Your task to perform on an android device: turn off translation in the chrome app Image 0: 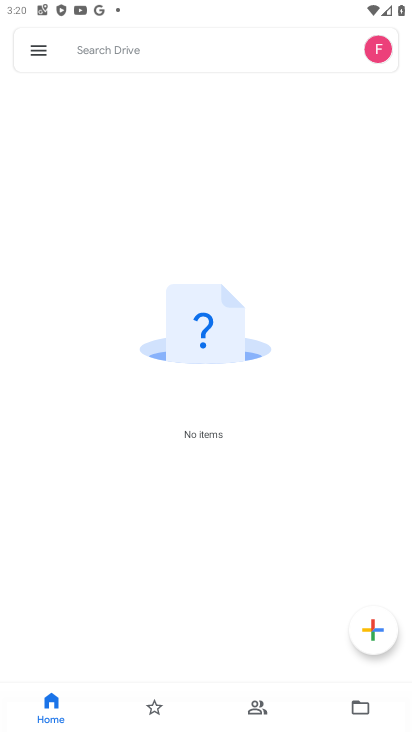
Step 0: press home button
Your task to perform on an android device: turn off translation in the chrome app Image 1: 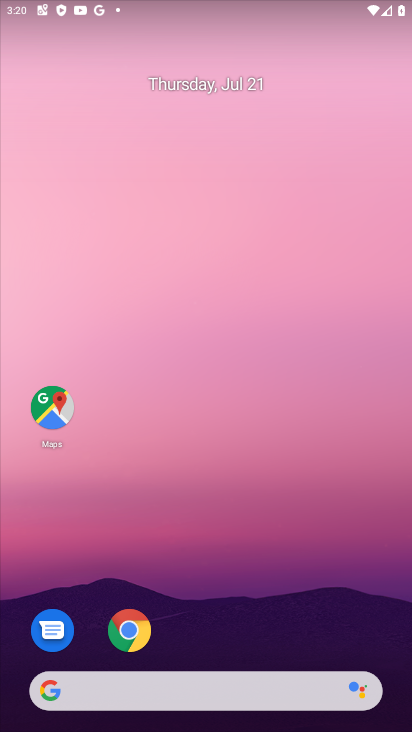
Step 1: drag from (283, 612) to (3, 623)
Your task to perform on an android device: turn off translation in the chrome app Image 2: 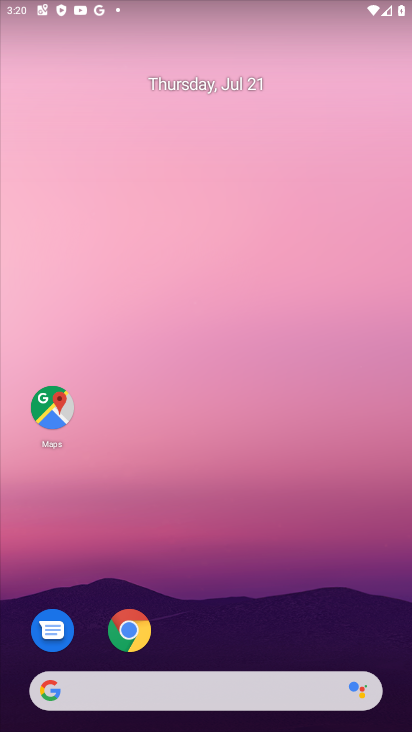
Step 2: click (204, 152)
Your task to perform on an android device: turn off translation in the chrome app Image 3: 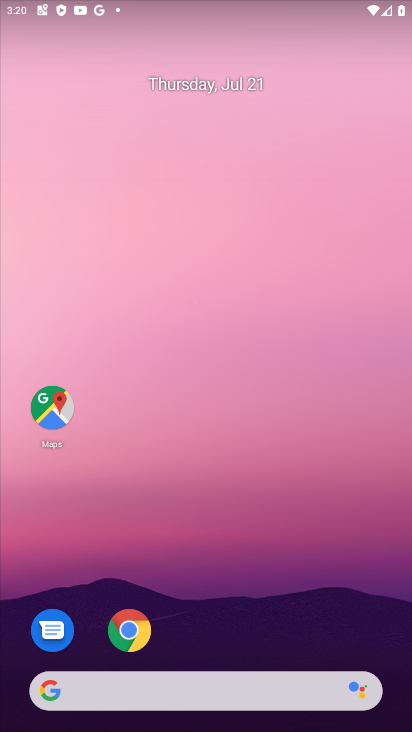
Step 3: drag from (302, 533) to (341, 28)
Your task to perform on an android device: turn off translation in the chrome app Image 4: 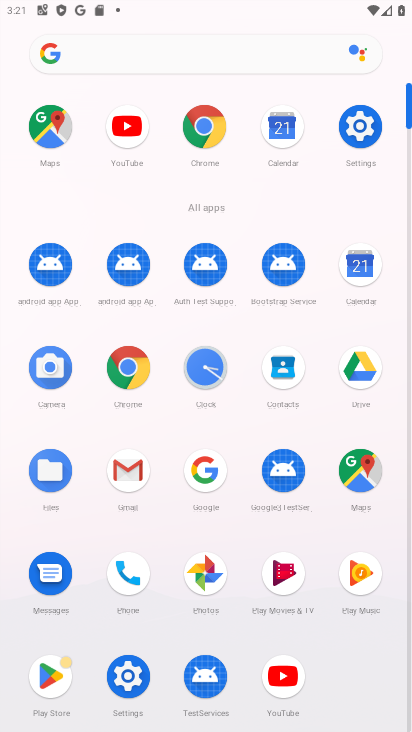
Step 4: click (212, 133)
Your task to perform on an android device: turn off translation in the chrome app Image 5: 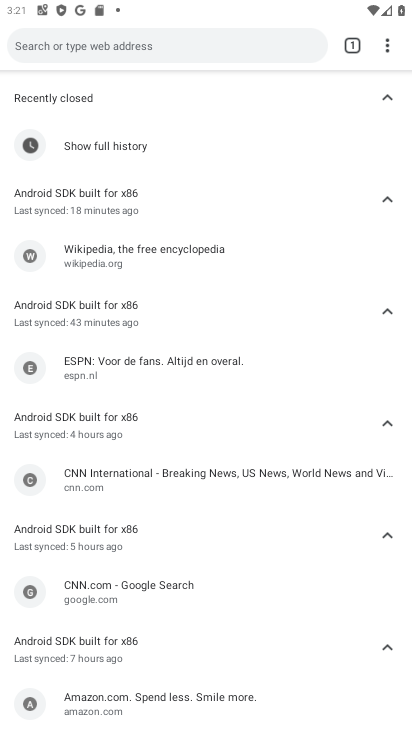
Step 5: drag from (392, 37) to (228, 379)
Your task to perform on an android device: turn off translation in the chrome app Image 6: 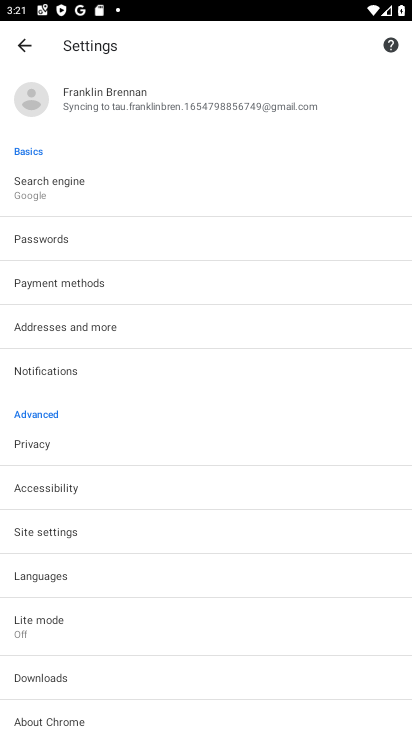
Step 6: click (87, 581)
Your task to perform on an android device: turn off translation in the chrome app Image 7: 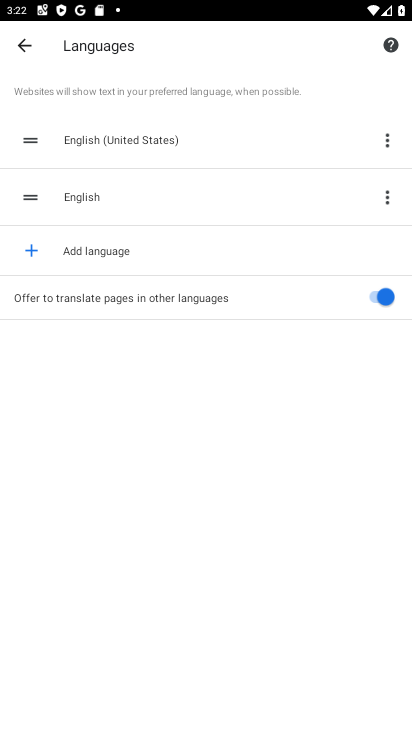
Step 7: click (391, 296)
Your task to perform on an android device: turn off translation in the chrome app Image 8: 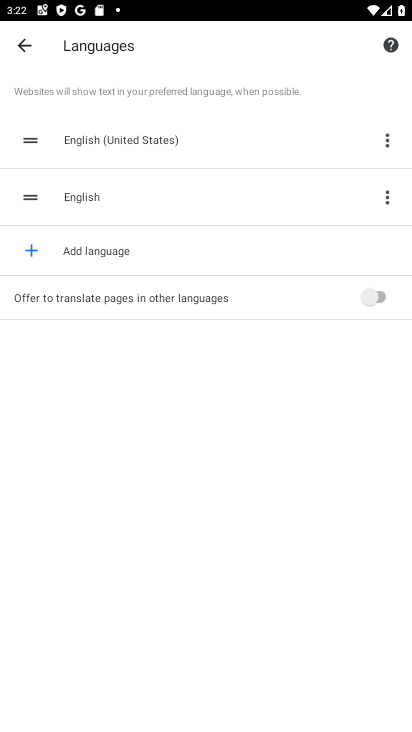
Step 8: task complete